Your task to perform on an android device: open a new tab in the chrome app Image 0: 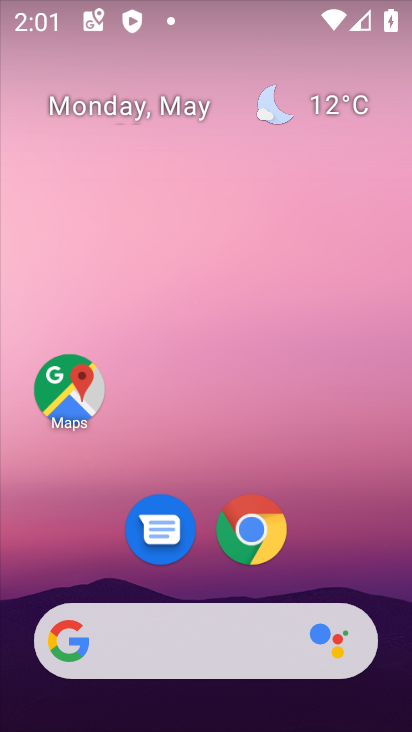
Step 0: click (252, 531)
Your task to perform on an android device: open a new tab in the chrome app Image 1: 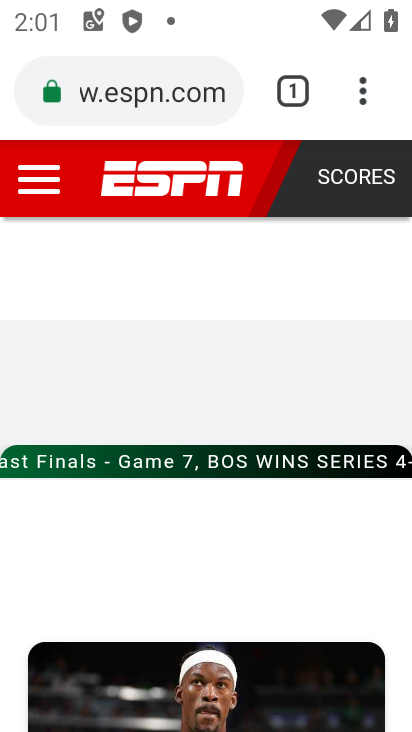
Step 1: click (362, 99)
Your task to perform on an android device: open a new tab in the chrome app Image 2: 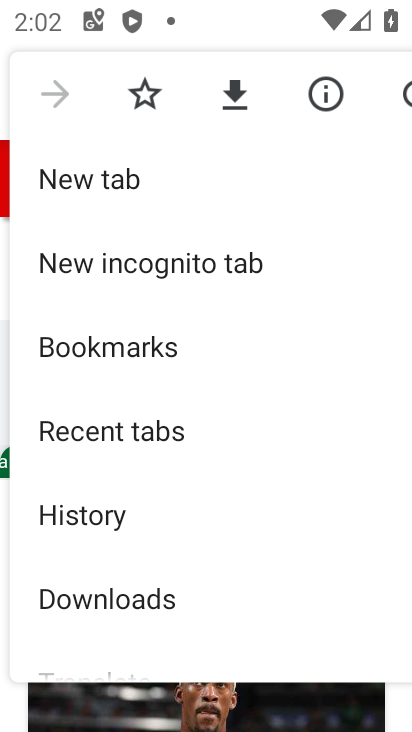
Step 2: click (85, 179)
Your task to perform on an android device: open a new tab in the chrome app Image 3: 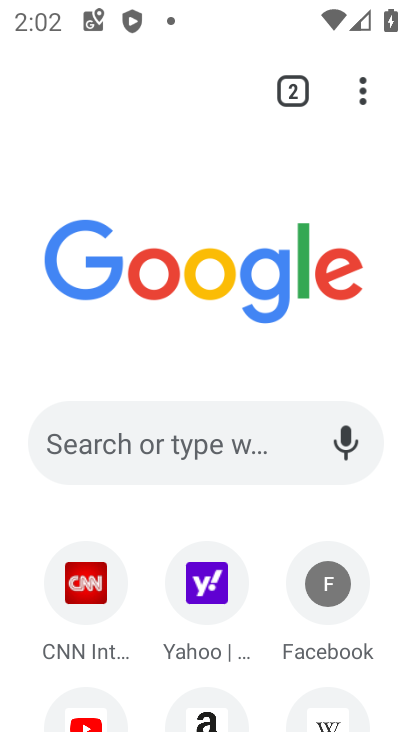
Step 3: task complete